Your task to perform on an android device: check out phone information Image 0: 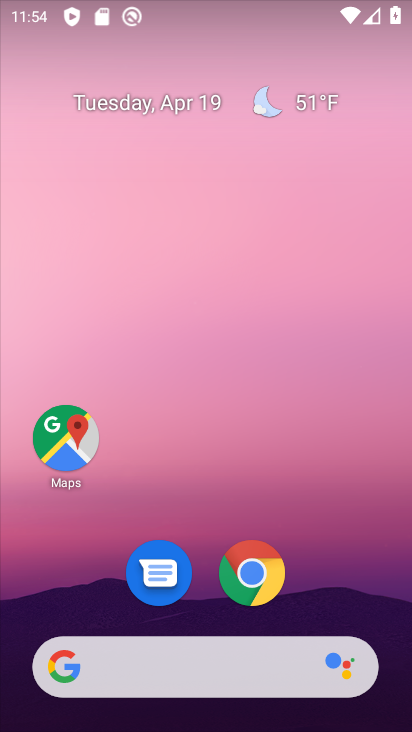
Step 0: drag from (303, 570) to (305, 124)
Your task to perform on an android device: check out phone information Image 1: 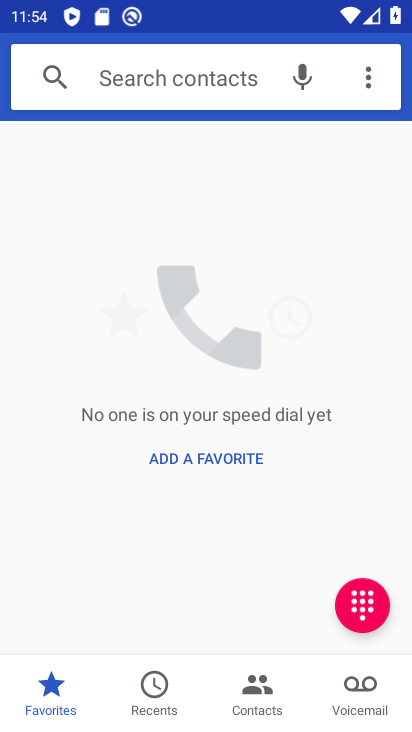
Step 1: press home button
Your task to perform on an android device: check out phone information Image 2: 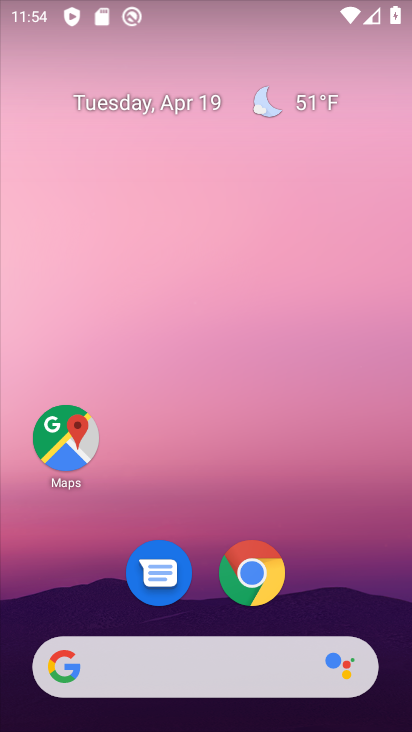
Step 2: drag from (340, 605) to (340, 213)
Your task to perform on an android device: check out phone information Image 3: 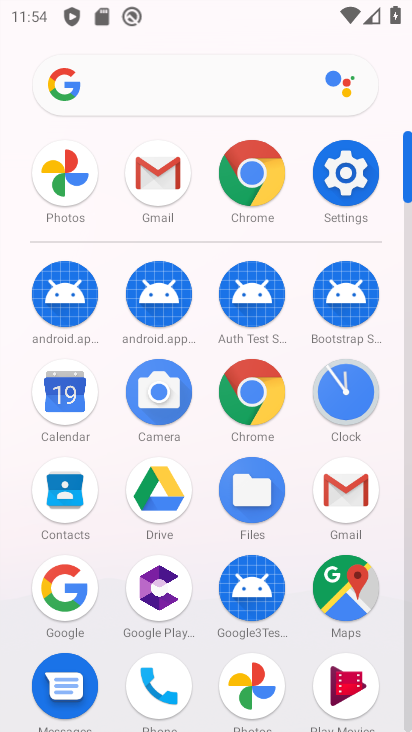
Step 3: drag from (202, 627) to (202, 349)
Your task to perform on an android device: check out phone information Image 4: 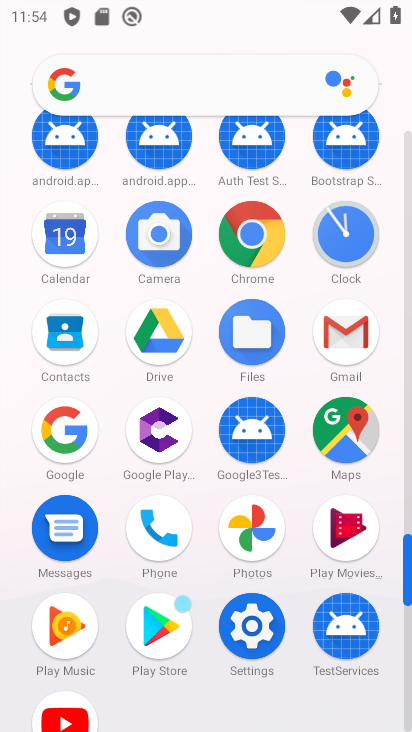
Step 4: click (171, 538)
Your task to perform on an android device: check out phone information Image 5: 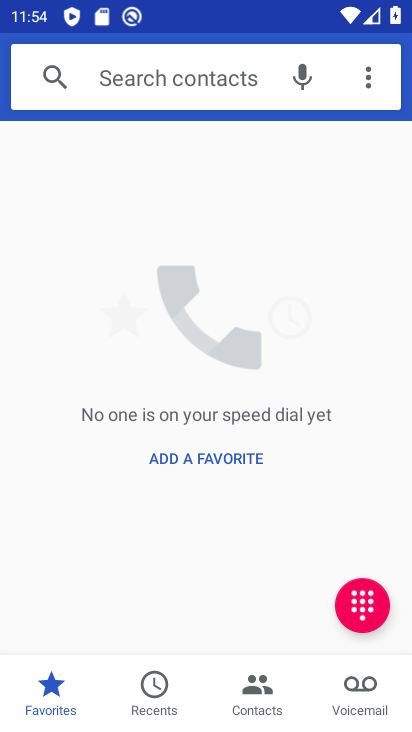
Step 5: click (355, 702)
Your task to perform on an android device: check out phone information Image 6: 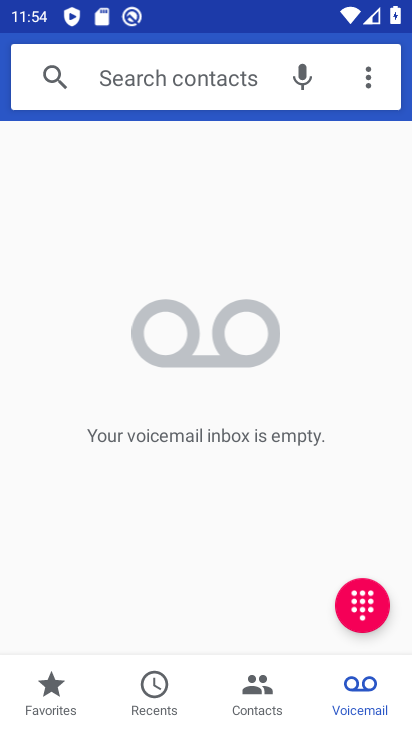
Step 6: drag from (368, 82) to (276, 147)
Your task to perform on an android device: check out phone information Image 7: 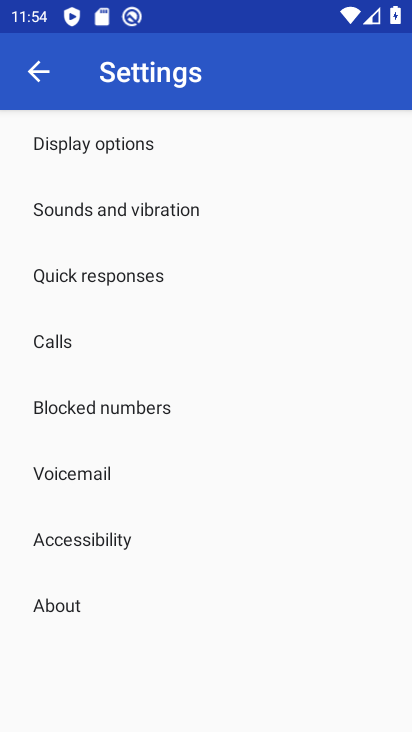
Step 7: click (80, 609)
Your task to perform on an android device: check out phone information Image 8: 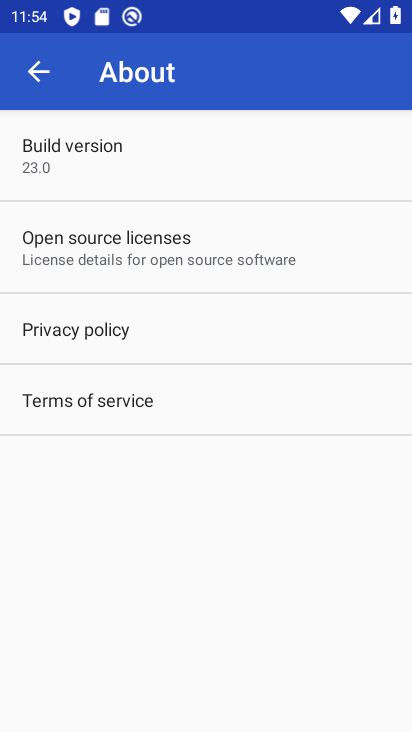
Step 8: task complete